Your task to perform on an android device: Open wifi settings Image 0: 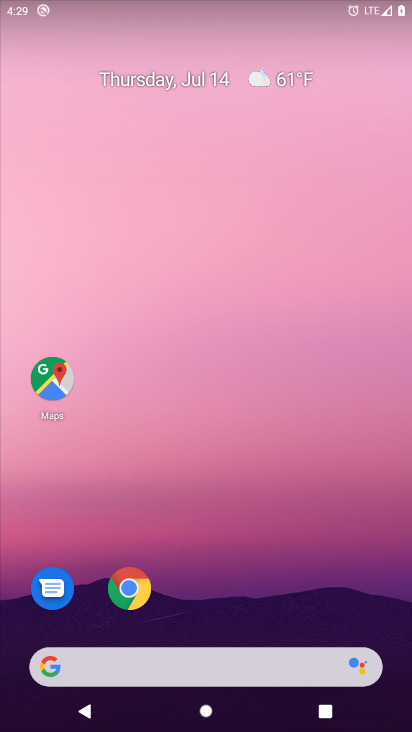
Step 0: press home button
Your task to perform on an android device: Open wifi settings Image 1: 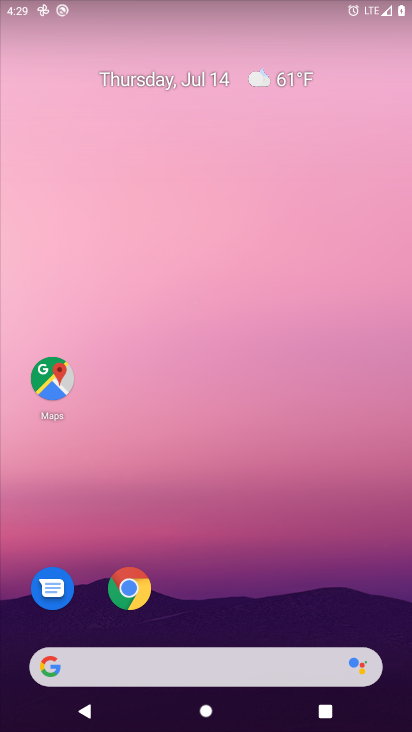
Step 1: drag from (236, 623) to (199, 107)
Your task to perform on an android device: Open wifi settings Image 2: 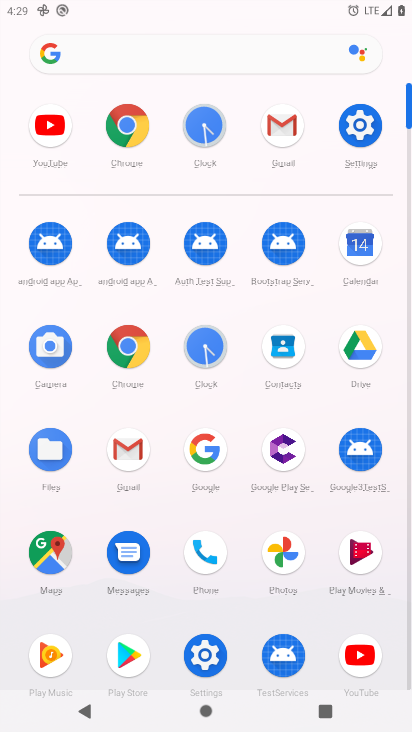
Step 2: click (355, 120)
Your task to perform on an android device: Open wifi settings Image 3: 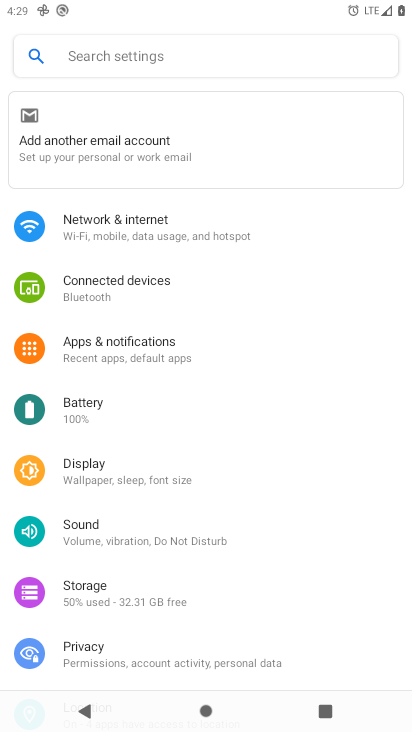
Step 3: click (91, 231)
Your task to perform on an android device: Open wifi settings Image 4: 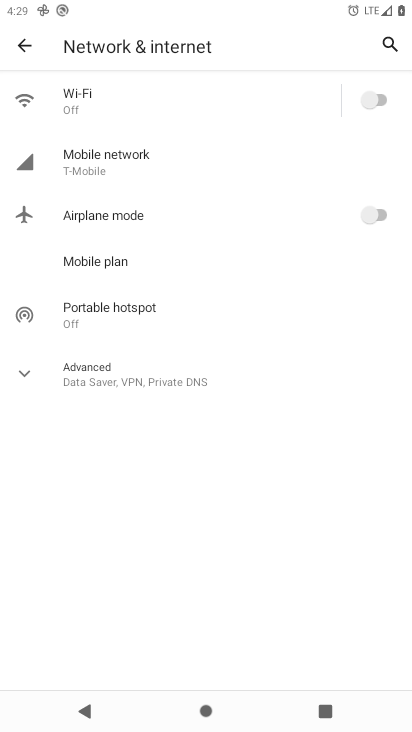
Step 4: click (87, 95)
Your task to perform on an android device: Open wifi settings Image 5: 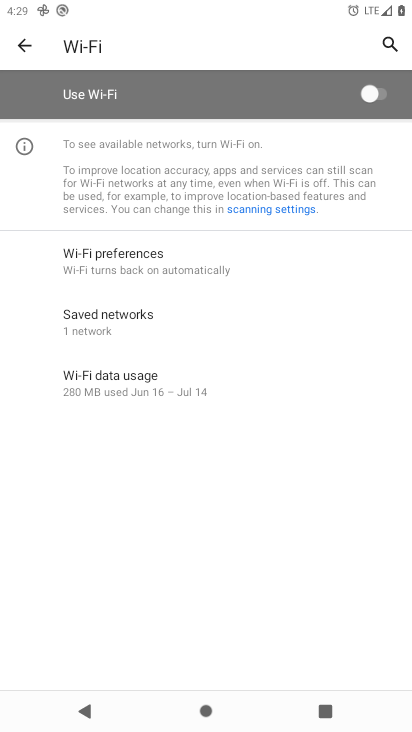
Step 5: click (376, 95)
Your task to perform on an android device: Open wifi settings Image 6: 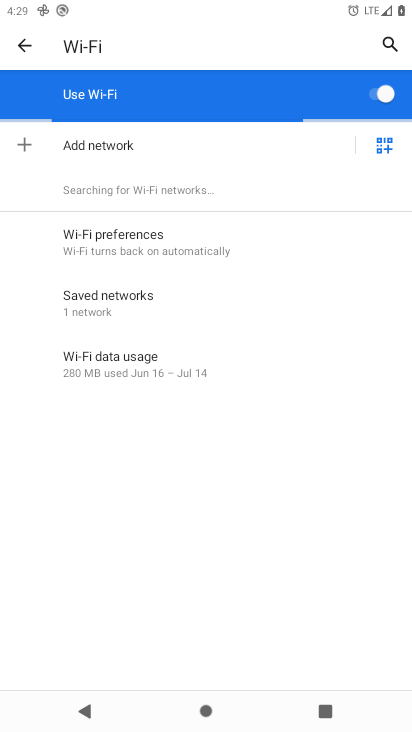
Step 6: task complete